Your task to perform on an android device: turn vacation reply on in the gmail app Image 0: 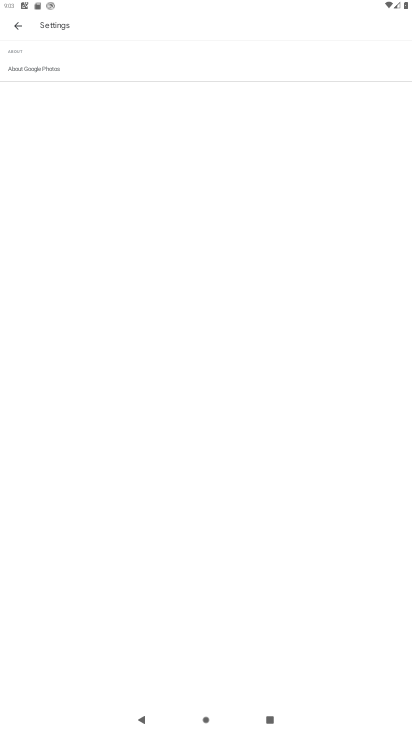
Step 0: press home button
Your task to perform on an android device: turn vacation reply on in the gmail app Image 1: 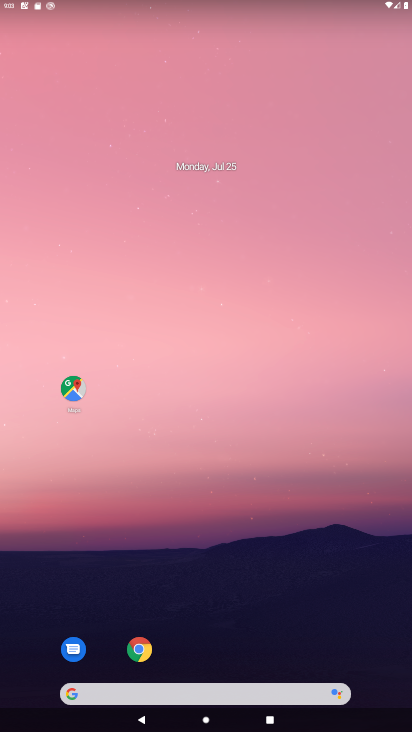
Step 1: drag from (218, 659) to (42, 67)
Your task to perform on an android device: turn vacation reply on in the gmail app Image 2: 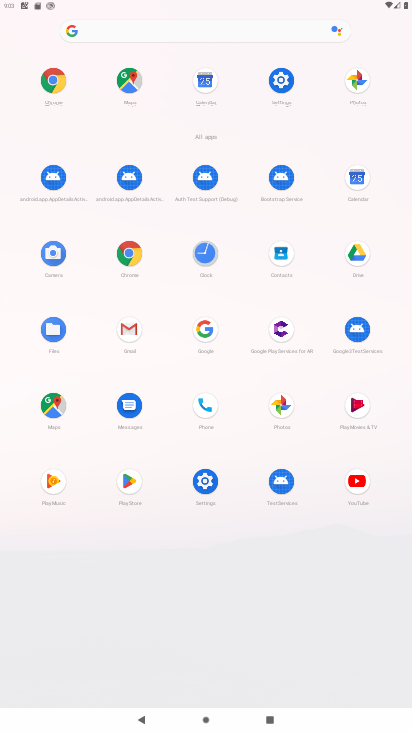
Step 2: click (121, 326)
Your task to perform on an android device: turn vacation reply on in the gmail app Image 3: 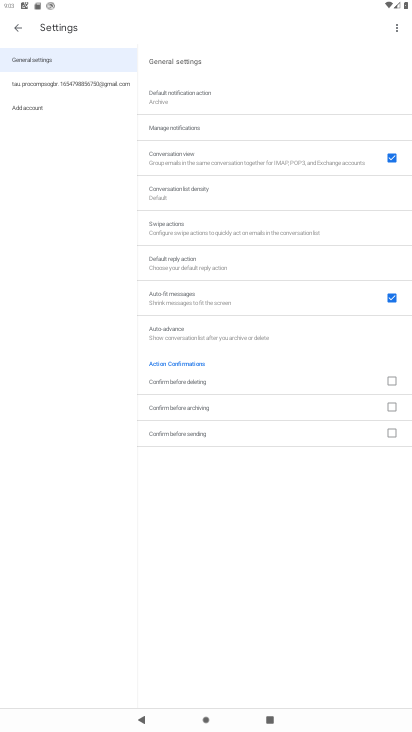
Step 3: click (13, 79)
Your task to perform on an android device: turn vacation reply on in the gmail app Image 4: 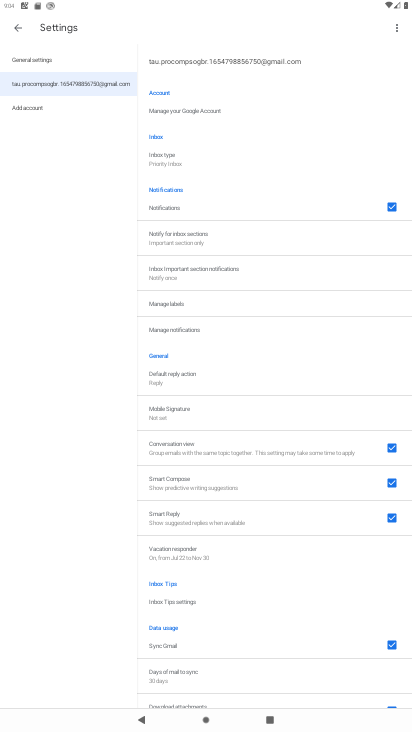
Step 4: drag from (208, 518) to (175, 167)
Your task to perform on an android device: turn vacation reply on in the gmail app Image 5: 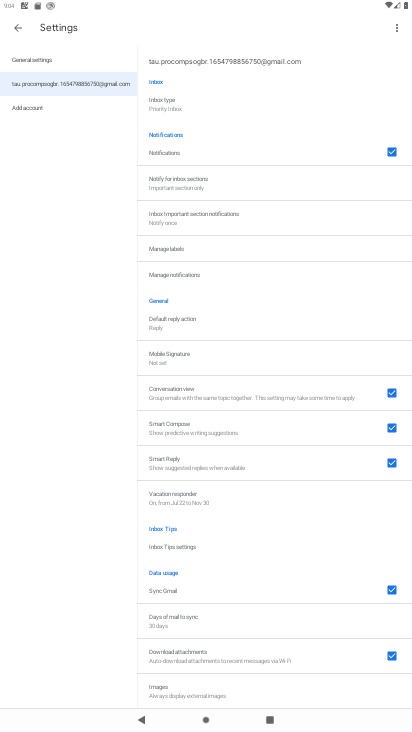
Step 5: click (187, 508)
Your task to perform on an android device: turn vacation reply on in the gmail app Image 6: 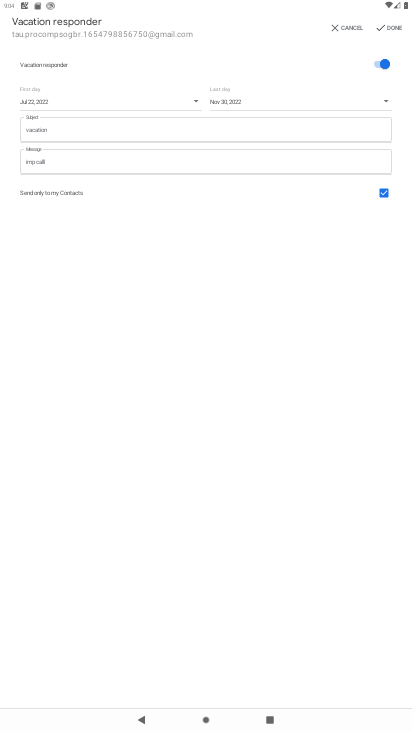
Step 6: click (383, 19)
Your task to perform on an android device: turn vacation reply on in the gmail app Image 7: 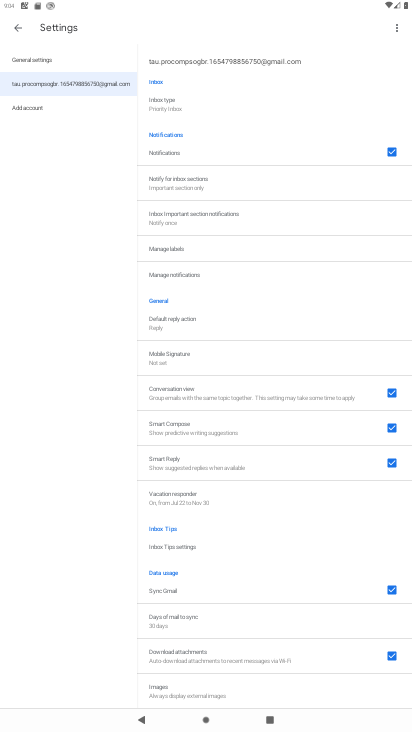
Step 7: task complete